Your task to perform on an android device: visit the assistant section in the google photos Image 0: 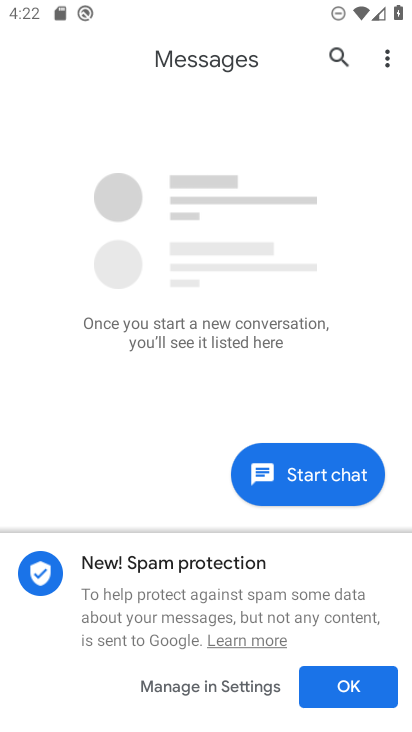
Step 0: press home button
Your task to perform on an android device: visit the assistant section in the google photos Image 1: 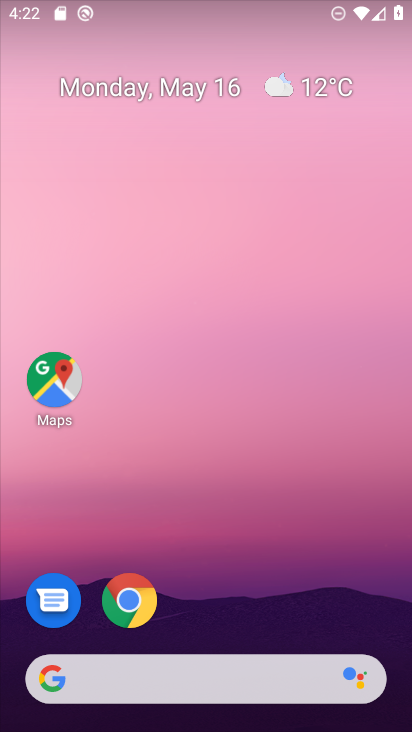
Step 1: drag from (288, 482) to (259, 175)
Your task to perform on an android device: visit the assistant section in the google photos Image 2: 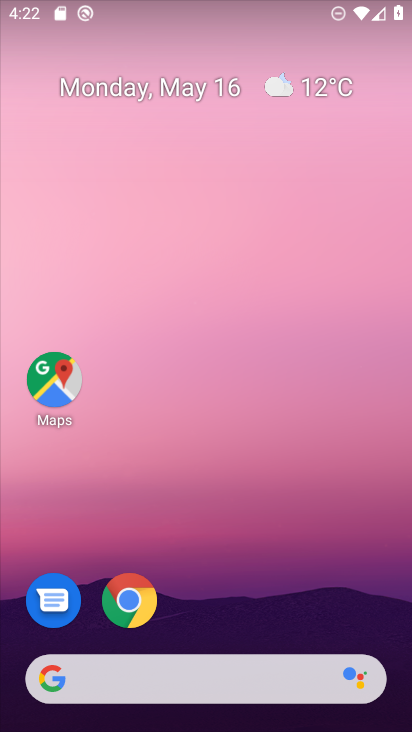
Step 2: drag from (250, 611) to (331, 206)
Your task to perform on an android device: visit the assistant section in the google photos Image 3: 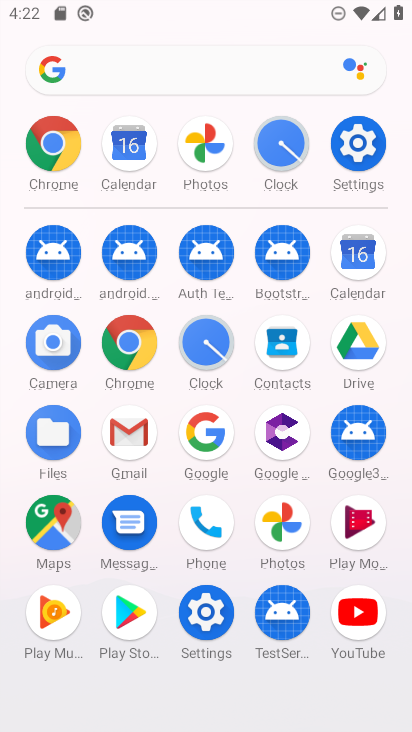
Step 3: click (289, 534)
Your task to perform on an android device: visit the assistant section in the google photos Image 4: 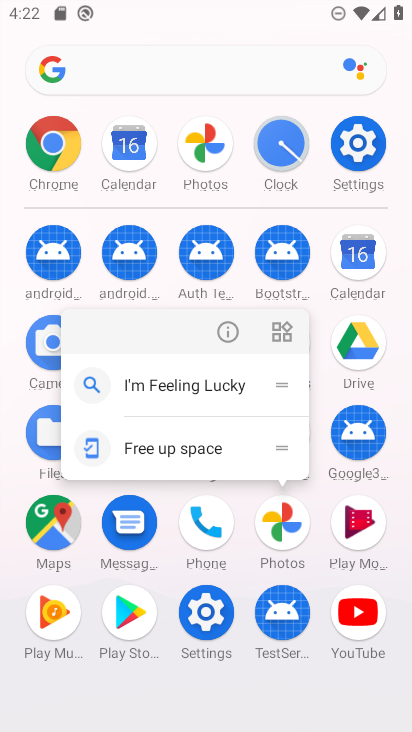
Step 4: click (289, 529)
Your task to perform on an android device: visit the assistant section in the google photos Image 5: 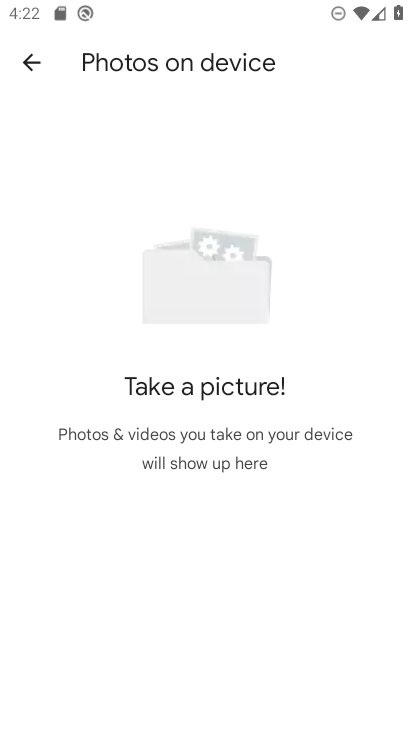
Step 5: click (32, 66)
Your task to perform on an android device: visit the assistant section in the google photos Image 6: 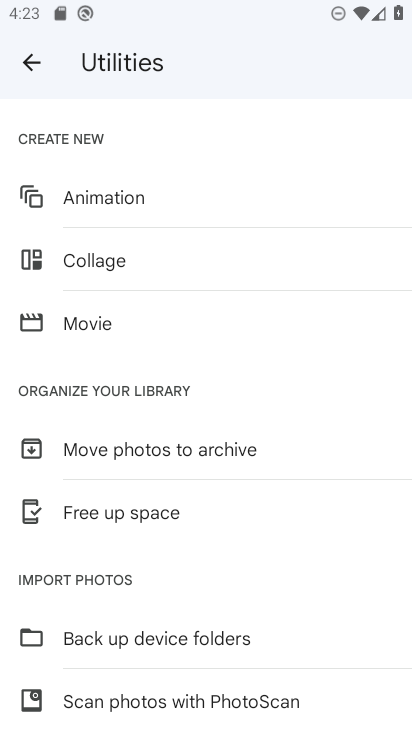
Step 6: click (42, 71)
Your task to perform on an android device: visit the assistant section in the google photos Image 7: 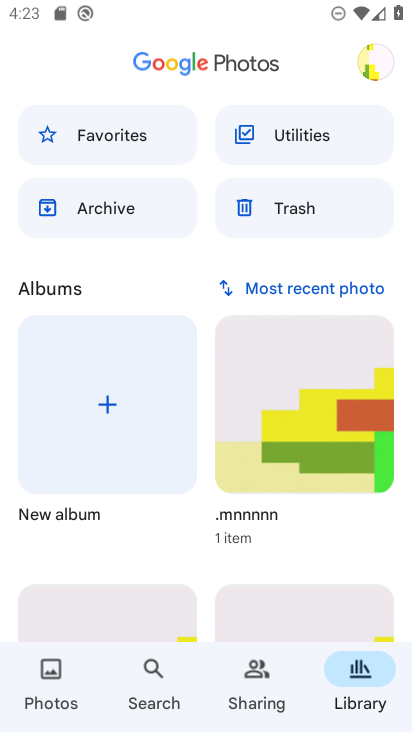
Step 7: click (343, 484)
Your task to perform on an android device: visit the assistant section in the google photos Image 8: 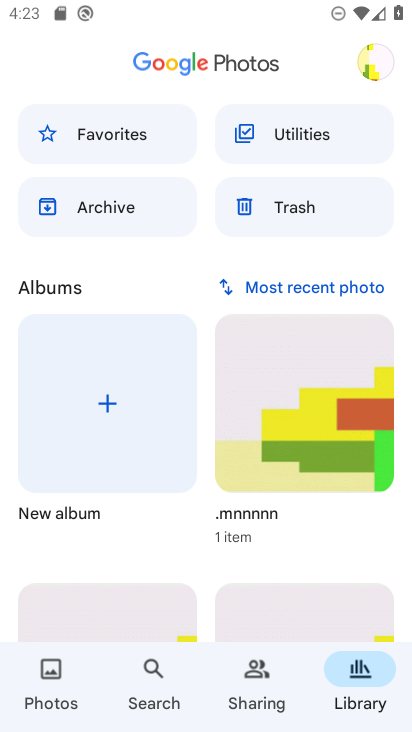
Step 8: click (321, 134)
Your task to perform on an android device: visit the assistant section in the google photos Image 9: 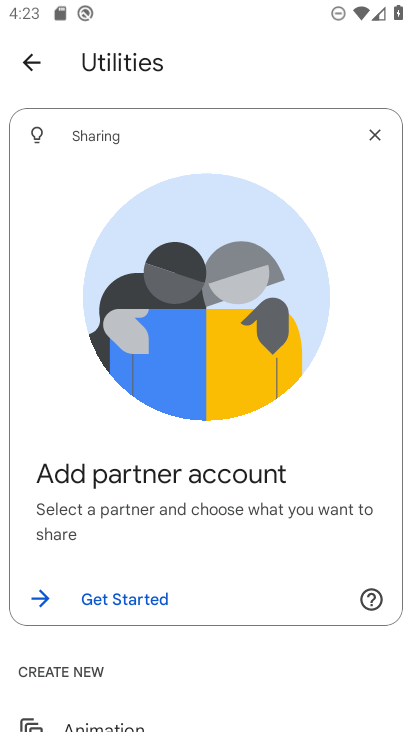
Step 9: task complete